Your task to perform on an android device: set default search engine in the chrome app Image 0: 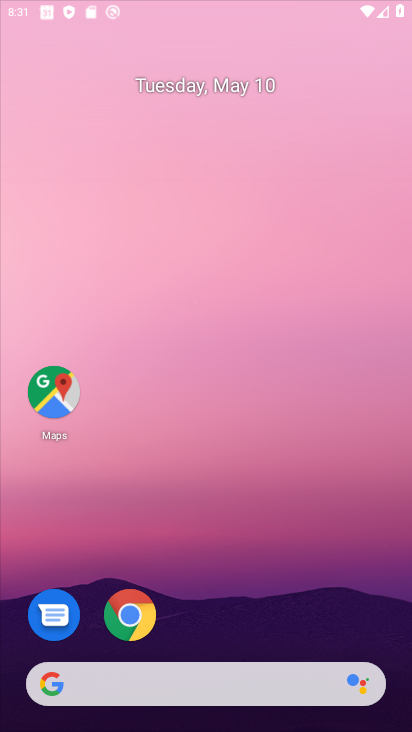
Step 0: click (187, 169)
Your task to perform on an android device: set default search engine in the chrome app Image 1: 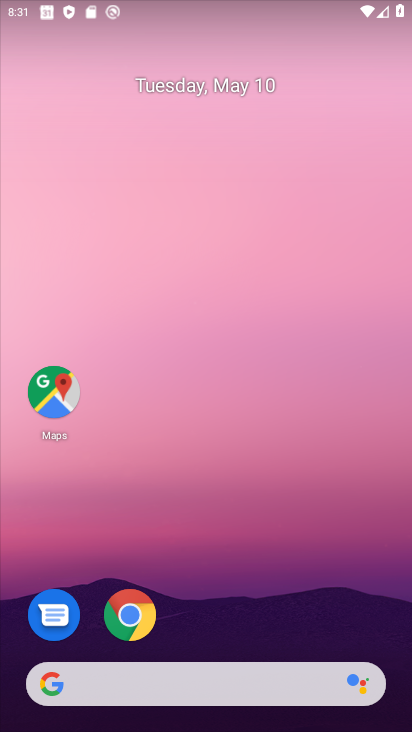
Step 1: drag from (201, 640) to (206, 151)
Your task to perform on an android device: set default search engine in the chrome app Image 2: 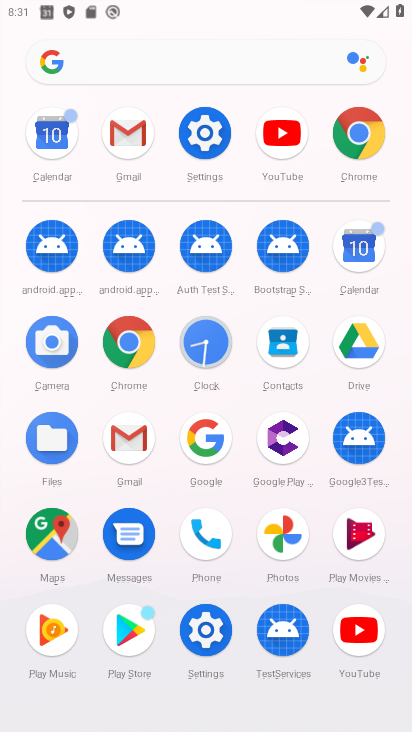
Step 2: click (373, 125)
Your task to perform on an android device: set default search engine in the chrome app Image 3: 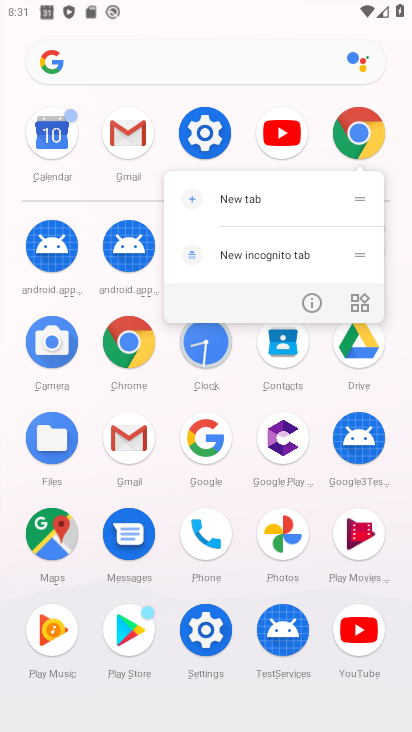
Step 3: click (305, 307)
Your task to perform on an android device: set default search engine in the chrome app Image 4: 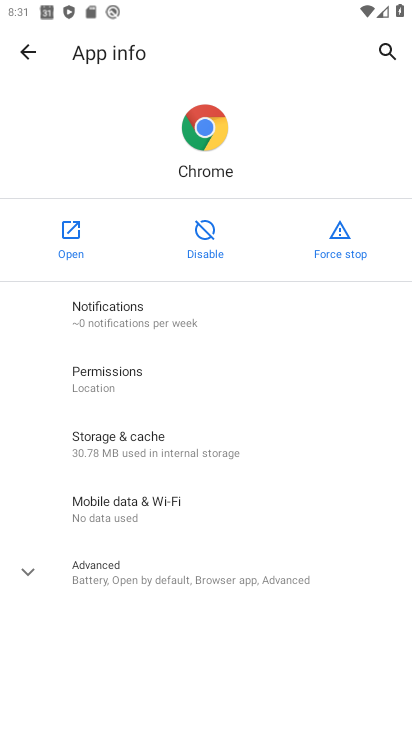
Step 4: click (72, 227)
Your task to perform on an android device: set default search engine in the chrome app Image 5: 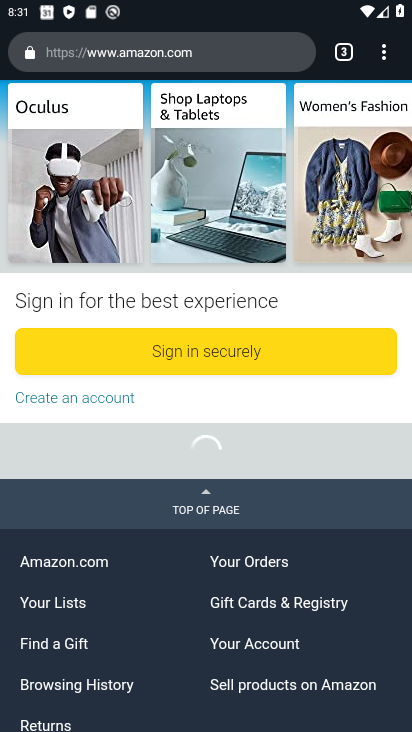
Step 5: drag from (393, 43) to (255, 620)
Your task to perform on an android device: set default search engine in the chrome app Image 6: 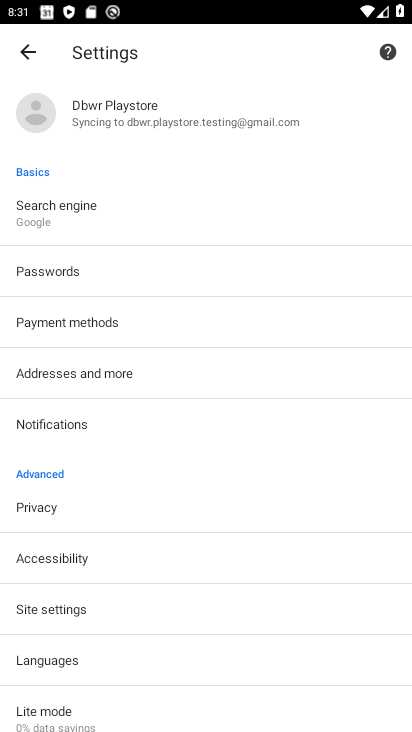
Step 6: click (35, 217)
Your task to perform on an android device: set default search engine in the chrome app Image 7: 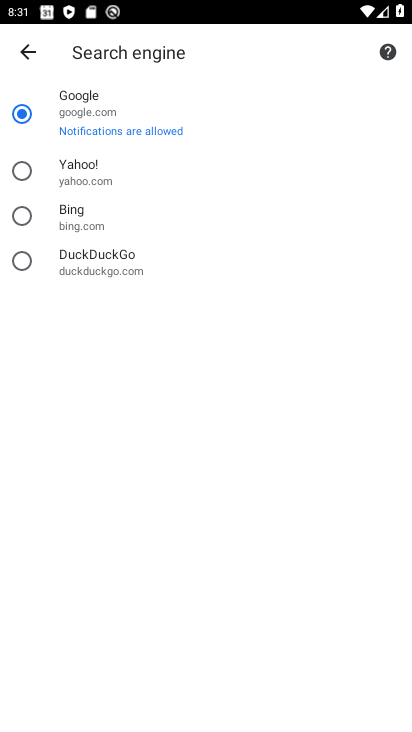
Step 7: task complete